Your task to perform on an android device: Show me the alarms in the clock app Image 0: 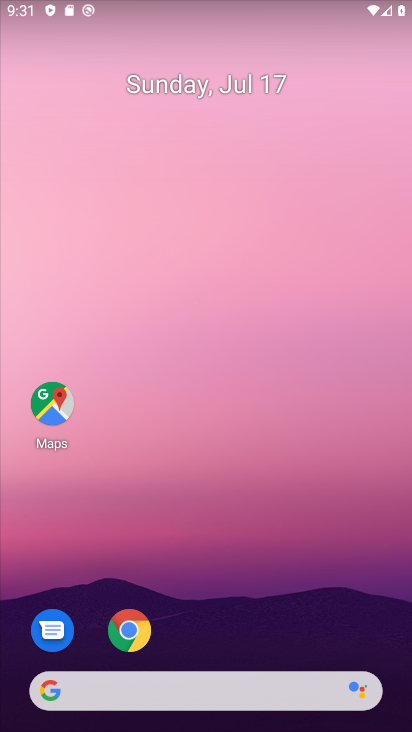
Step 0: drag from (189, 658) to (208, 18)
Your task to perform on an android device: Show me the alarms in the clock app Image 1: 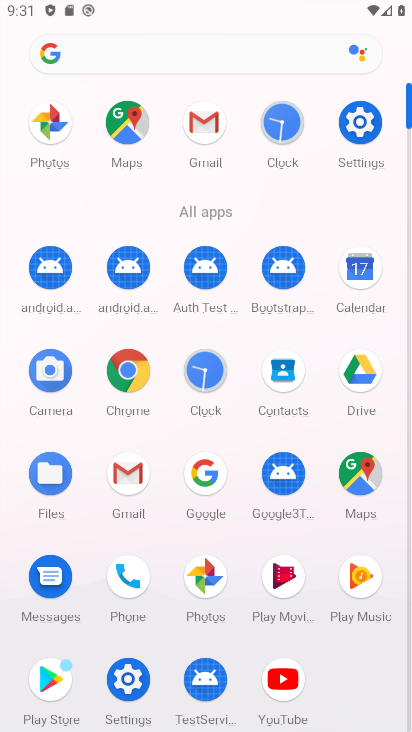
Step 1: click (198, 380)
Your task to perform on an android device: Show me the alarms in the clock app Image 2: 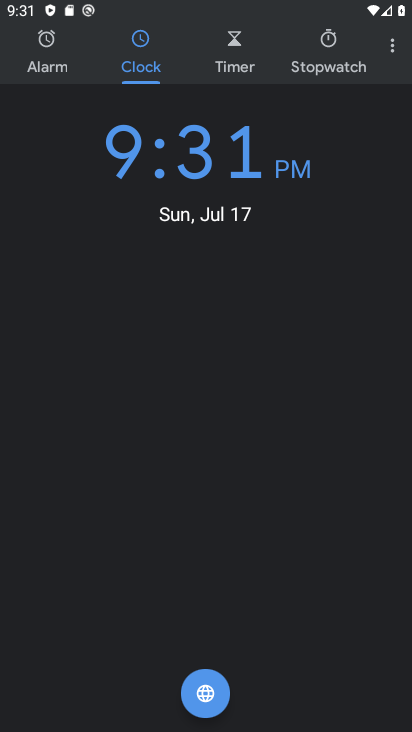
Step 2: click (57, 50)
Your task to perform on an android device: Show me the alarms in the clock app Image 3: 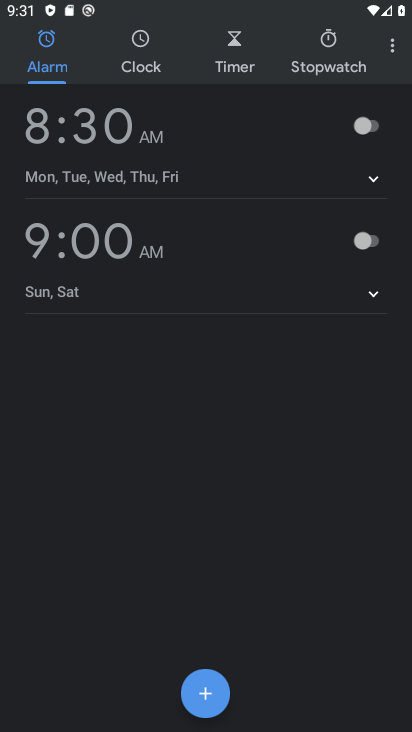
Step 3: click (203, 677)
Your task to perform on an android device: Show me the alarms in the clock app Image 4: 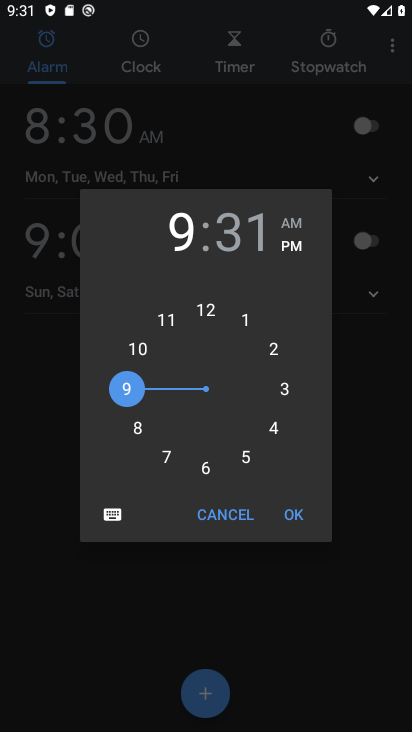
Step 4: click (216, 520)
Your task to perform on an android device: Show me the alarms in the clock app Image 5: 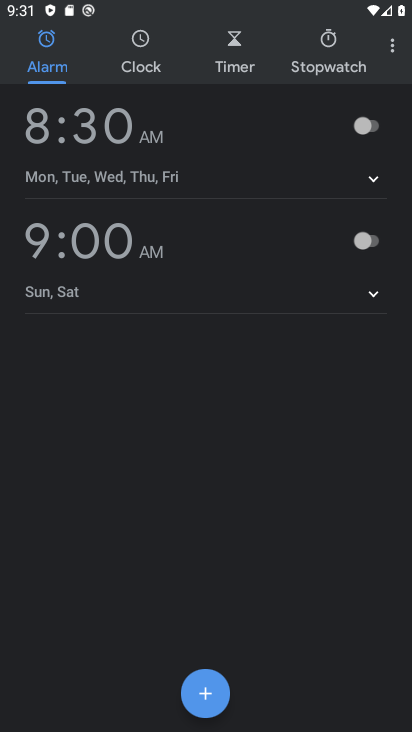
Step 5: task complete